Your task to perform on an android device: turn notification dots on Image 0: 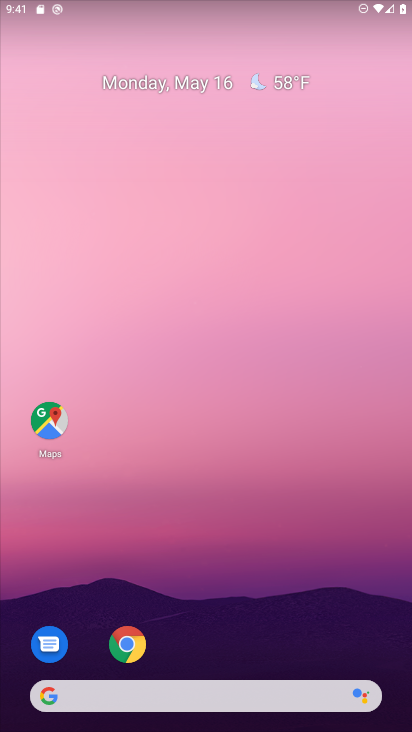
Step 0: drag from (218, 691) to (242, 327)
Your task to perform on an android device: turn notification dots on Image 1: 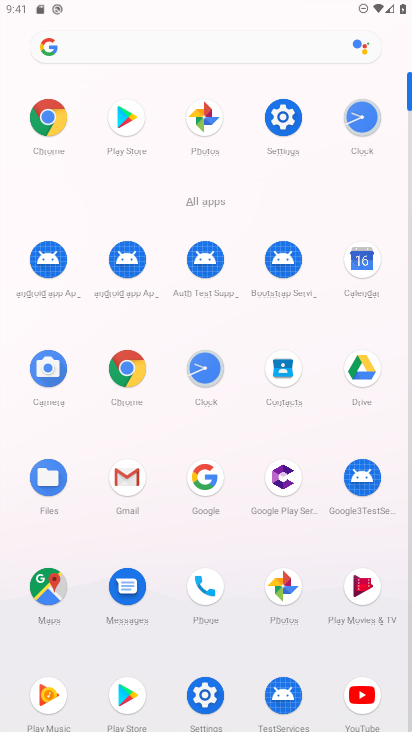
Step 1: click (283, 120)
Your task to perform on an android device: turn notification dots on Image 2: 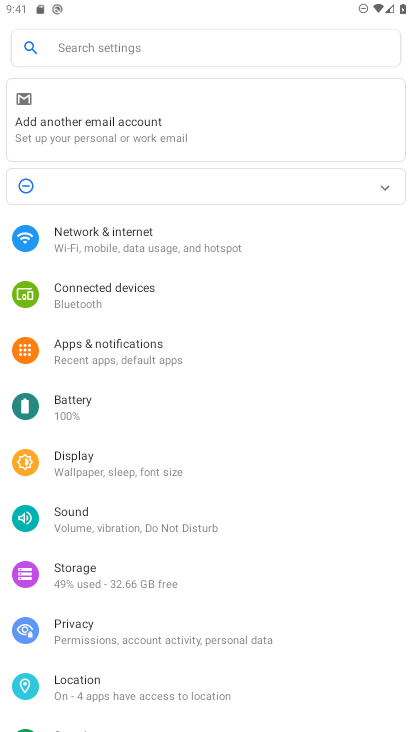
Step 2: click (155, 358)
Your task to perform on an android device: turn notification dots on Image 3: 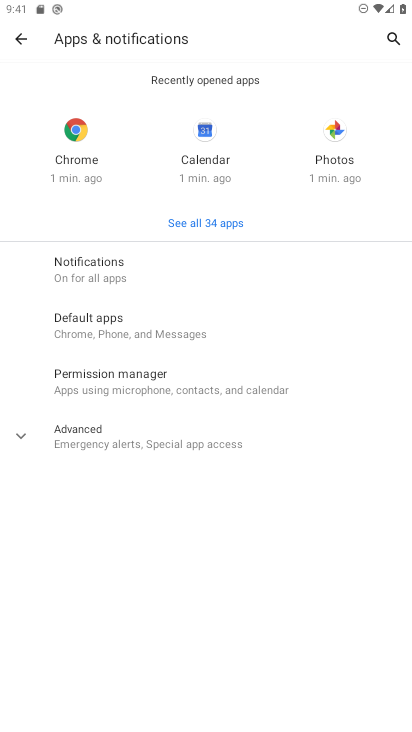
Step 3: click (106, 262)
Your task to perform on an android device: turn notification dots on Image 4: 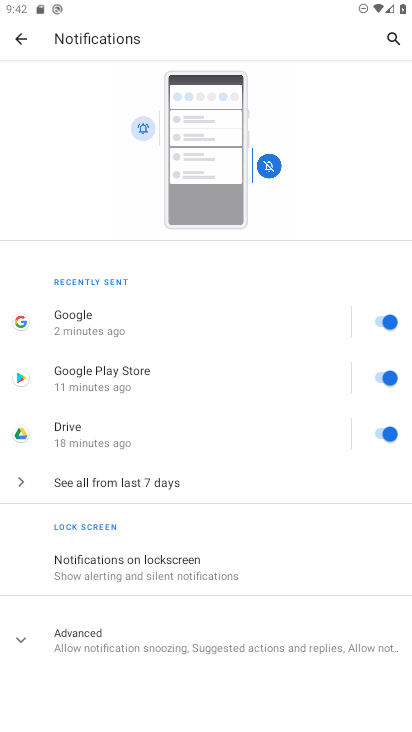
Step 4: click (89, 628)
Your task to perform on an android device: turn notification dots on Image 5: 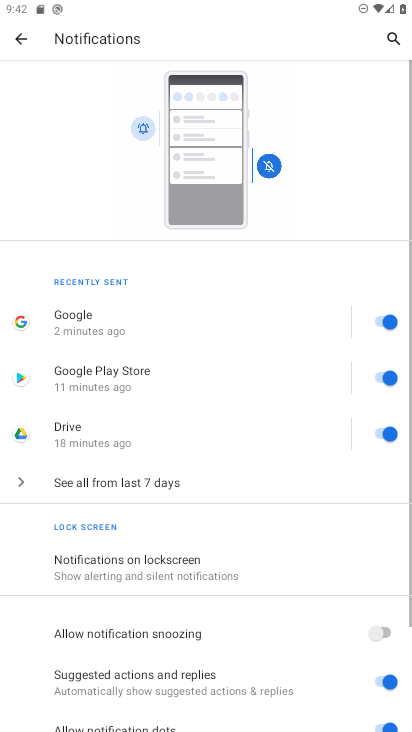
Step 5: task complete